Your task to perform on an android device: install app "Instagram" Image 0: 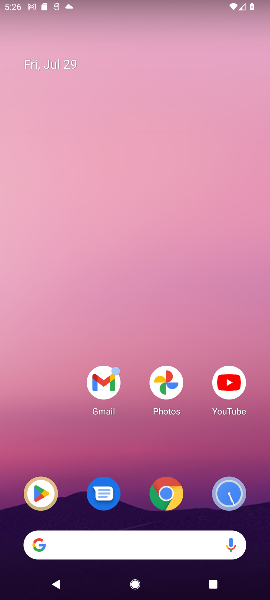
Step 0: drag from (158, 596) to (131, 9)
Your task to perform on an android device: install app "Instagram" Image 1: 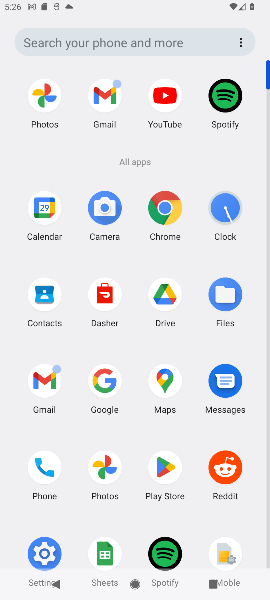
Step 1: click (159, 472)
Your task to perform on an android device: install app "Instagram" Image 2: 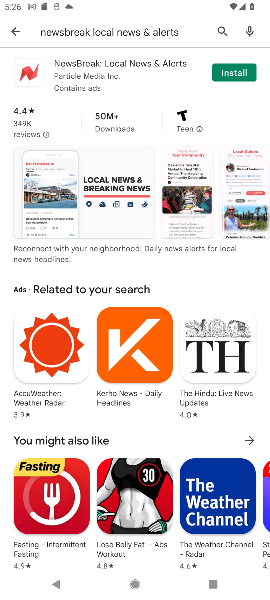
Step 2: click (218, 26)
Your task to perform on an android device: install app "Instagram" Image 3: 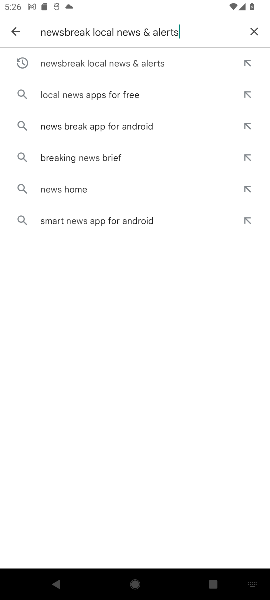
Step 3: click (254, 27)
Your task to perform on an android device: install app "Instagram" Image 4: 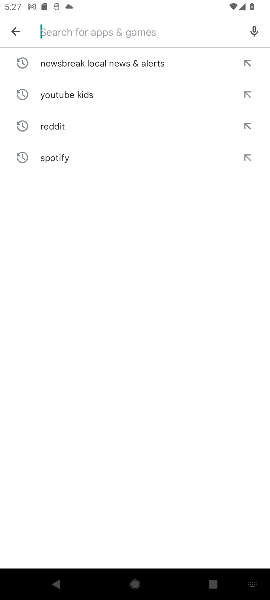
Step 4: type "Instagram"
Your task to perform on an android device: install app "Instagram" Image 5: 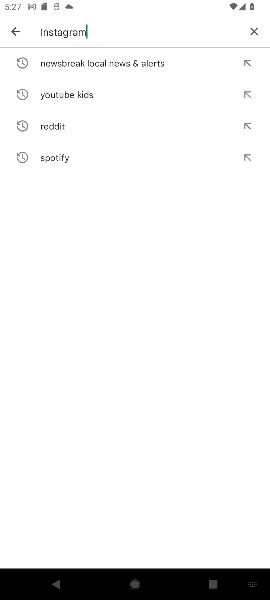
Step 5: type ""
Your task to perform on an android device: install app "Instagram" Image 6: 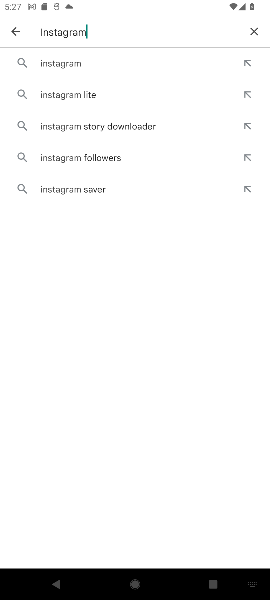
Step 6: click (72, 65)
Your task to perform on an android device: install app "Instagram" Image 7: 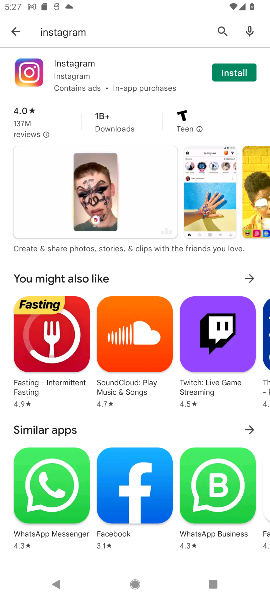
Step 7: click (230, 70)
Your task to perform on an android device: install app "Instagram" Image 8: 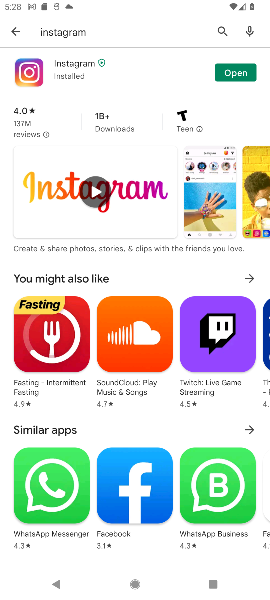
Step 8: task complete